Your task to perform on an android device: set the stopwatch Image 0: 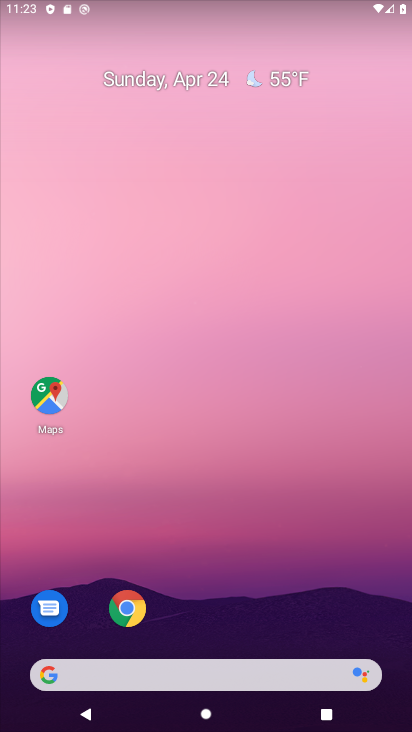
Step 0: drag from (227, 482) to (305, 19)
Your task to perform on an android device: set the stopwatch Image 1: 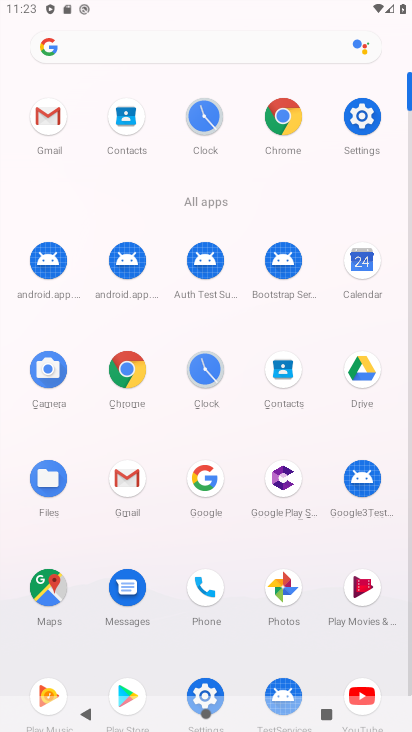
Step 1: click (202, 372)
Your task to perform on an android device: set the stopwatch Image 2: 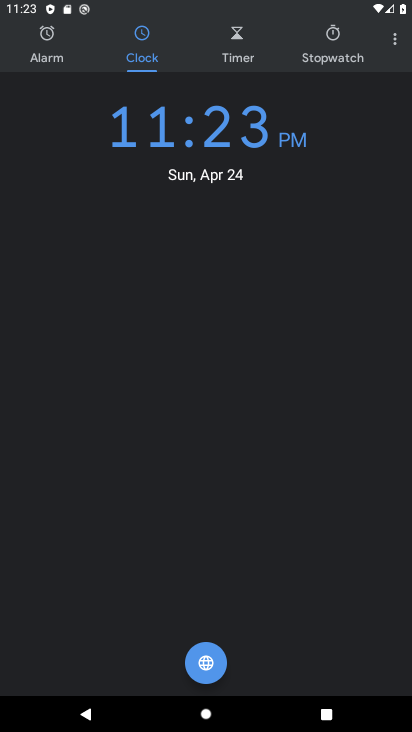
Step 2: click (340, 38)
Your task to perform on an android device: set the stopwatch Image 3: 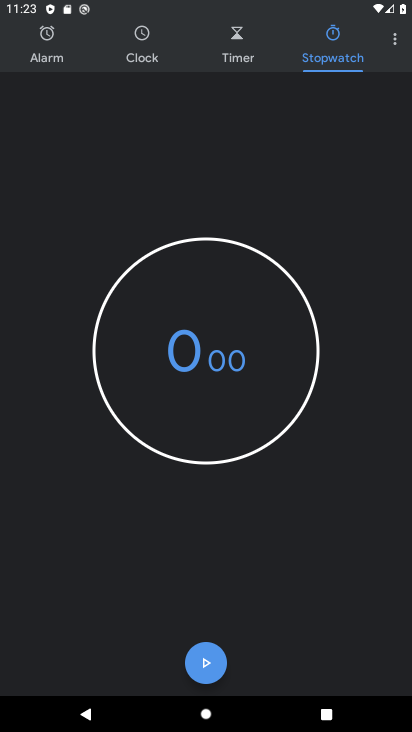
Step 3: click (187, 356)
Your task to perform on an android device: set the stopwatch Image 4: 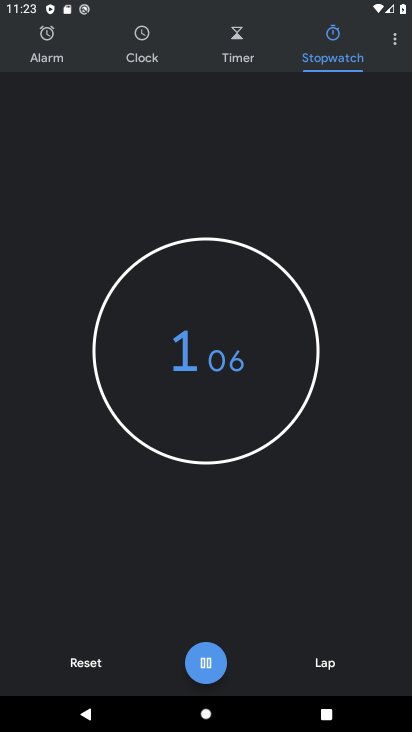
Step 4: click (184, 355)
Your task to perform on an android device: set the stopwatch Image 5: 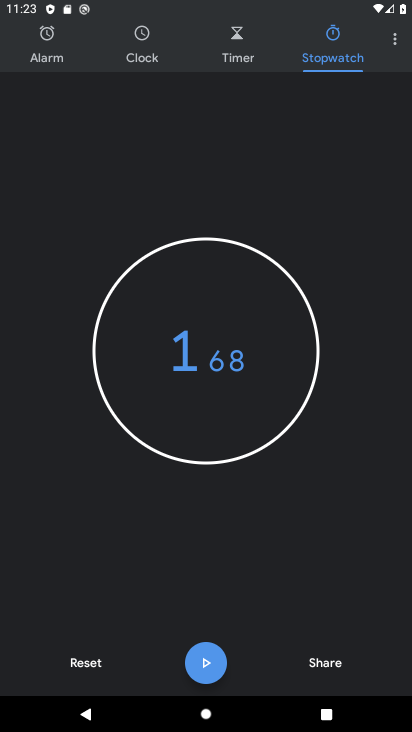
Step 5: task complete